Your task to perform on an android device: turn on translation in the chrome app Image 0: 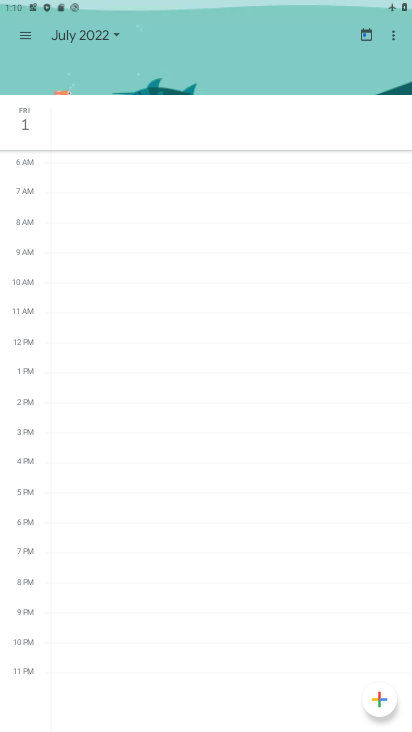
Step 0: press home button
Your task to perform on an android device: turn on translation in the chrome app Image 1: 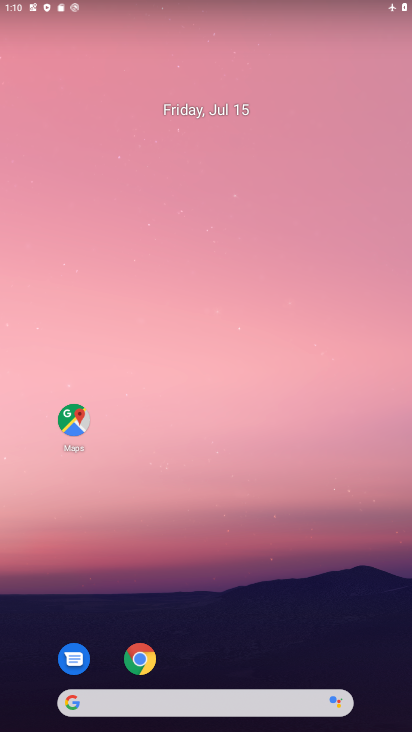
Step 1: click (210, 658)
Your task to perform on an android device: turn on translation in the chrome app Image 2: 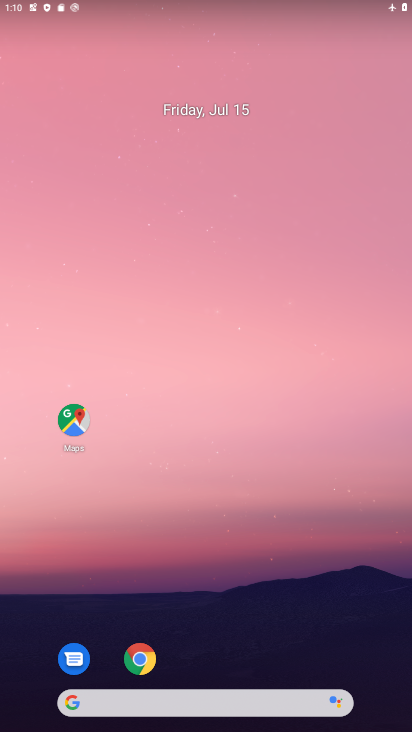
Step 2: click (152, 651)
Your task to perform on an android device: turn on translation in the chrome app Image 3: 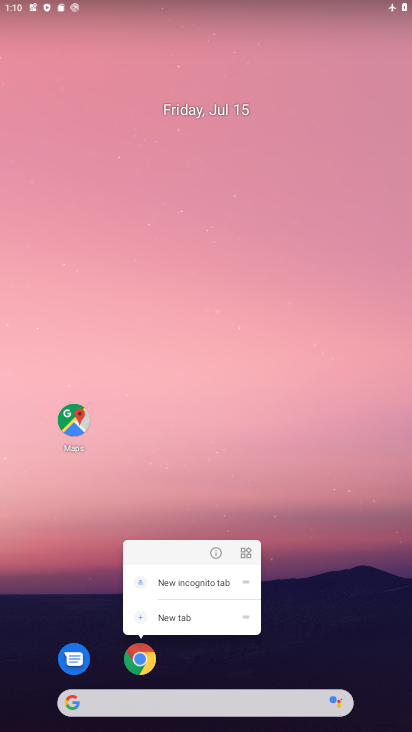
Step 3: click (145, 662)
Your task to perform on an android device: turn on translation in the chrome app Image 4: 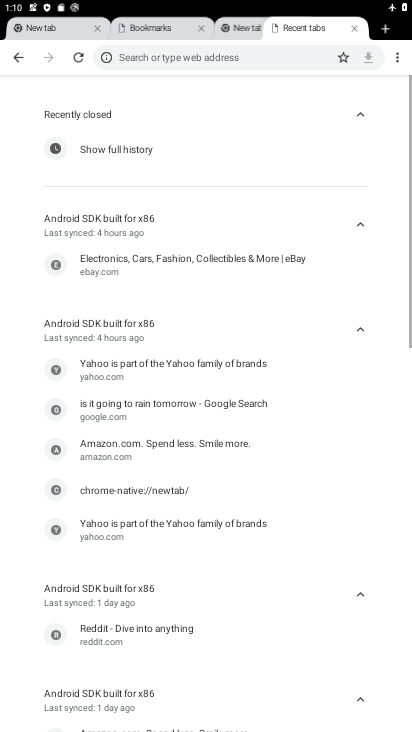
Step 4: click (398, 57)
Your task to perform on an android device: turn on translation in the chrome app Image 5: 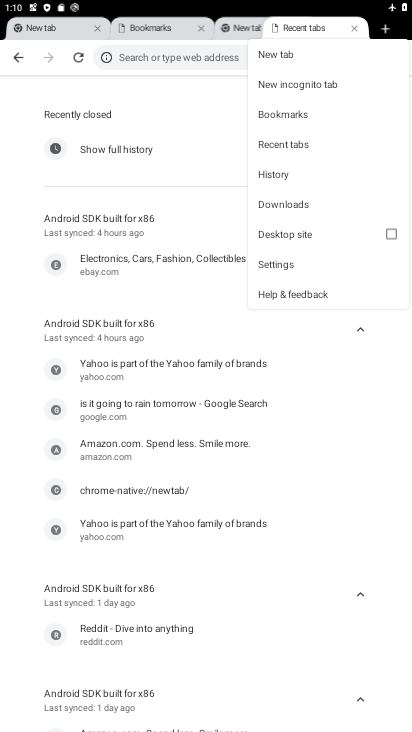
Step 5: click (289, 263)
Your task to perform on an android device: turn on translation in the chrome app Image 6: 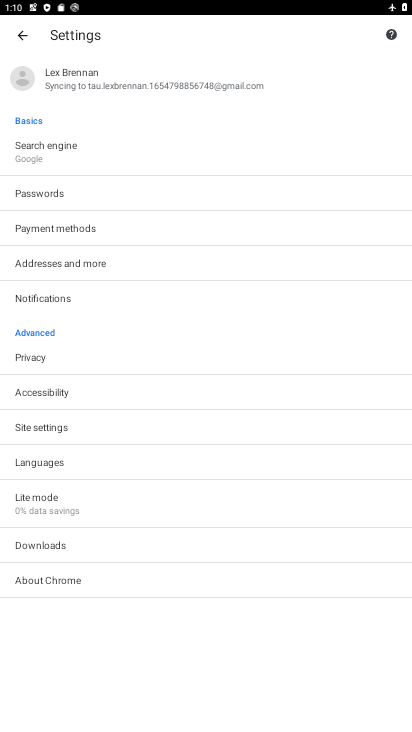
Step 6: click (81, 457)
Your task to perform on an android device: turn on translation in the chrome app Image 7: 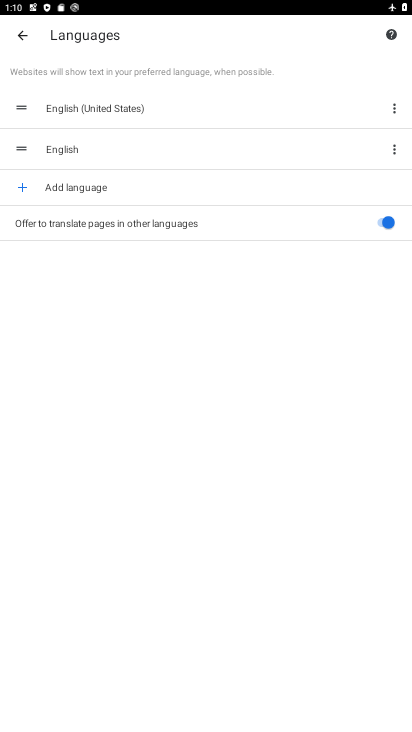
Step 7: task complete